Your task to perform on an android device: Open Youtube and go to "Your channel" Image 0: 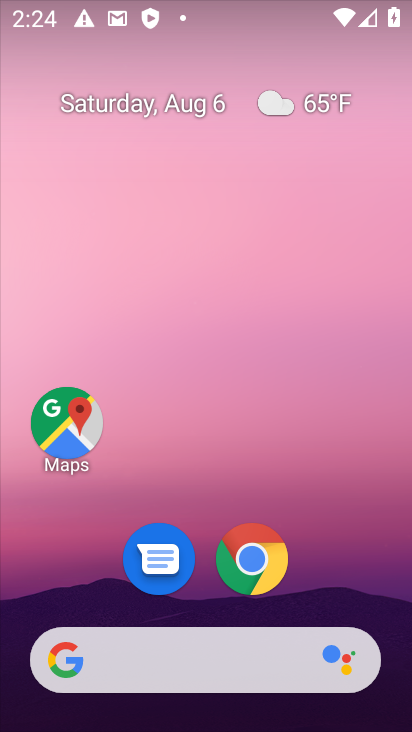
Step 0: drag from (203, 491) to (203, 137)
Your task to perform on an android device: Open Youtube and go to "Your channel" Image 1: 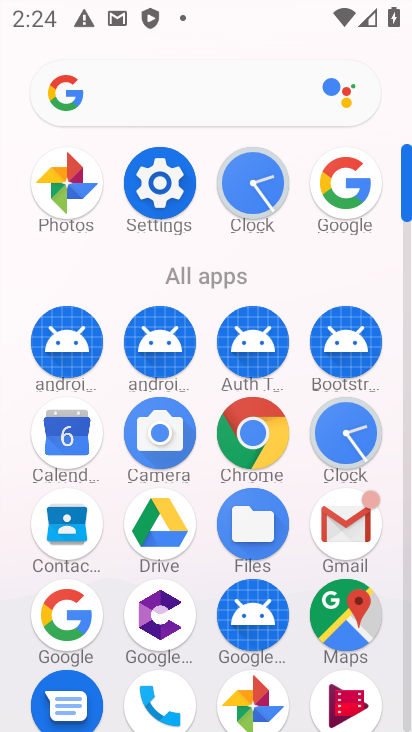
Step 1: drag from (203, 478) to (213, 152)
Your task to perform on an android device: Open Youtube and go to "Your channel" Image 2: 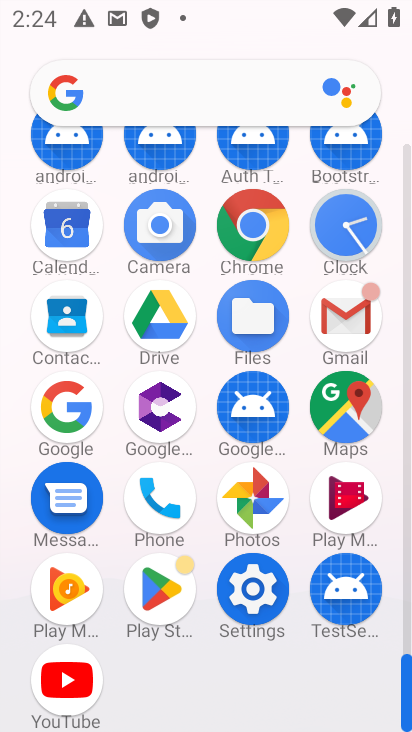
Step 2: click (81, 669)
Your task to perform on an android device: Open Youtube and go to "Your channel" Image 3: 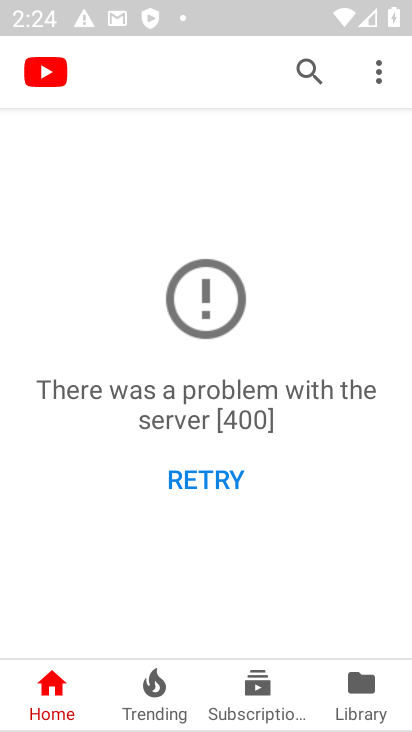
Step 3: click (378, 58)
Your task to perform on an android device: Open Youtube and go to "Your channel" Image 4: 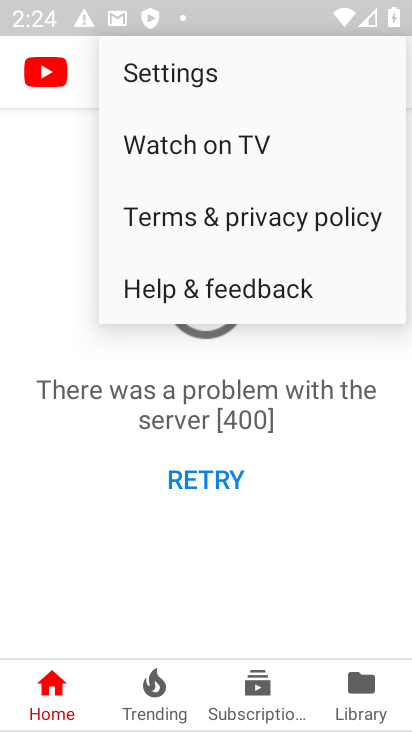
Step 4: click (336, 497)
Your task to perform on an android device: Open Youtube and go to "Your channel" Image 5: 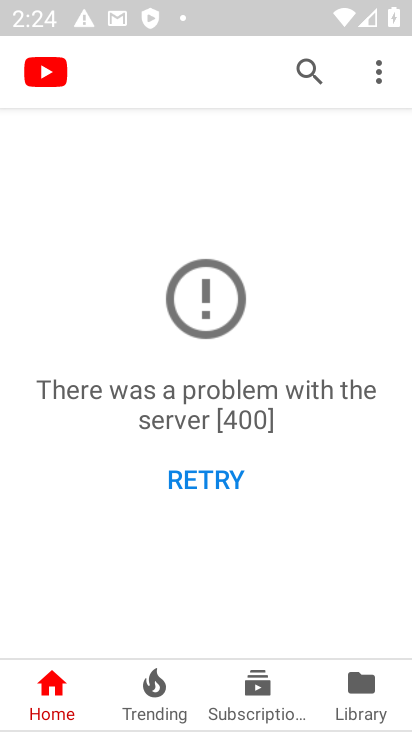
Step 5: click (354, 676)
Your task to perform on an android device: Open Youtube and go to "Your channel" Image 6: 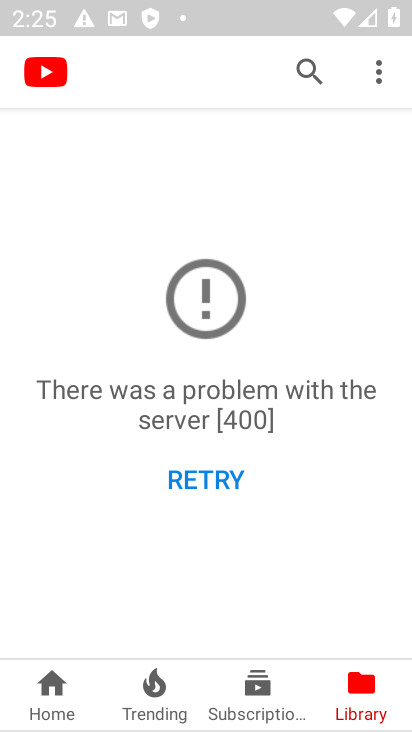
Step 6: task complete